Your task to perform on an android device: snooze an email in the gmail app Image 0: 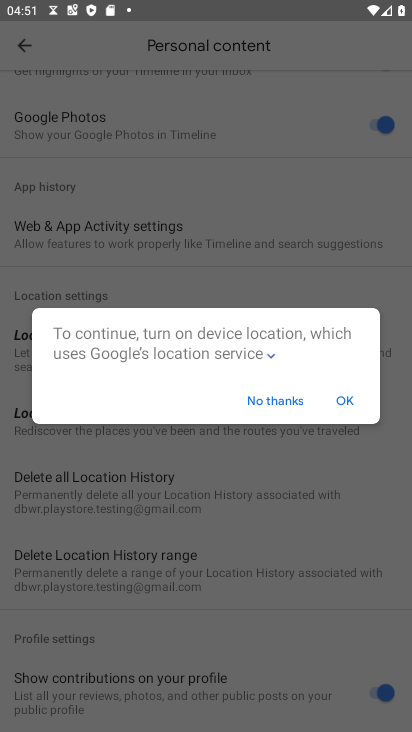
Step 0: press home button
Your task to perform on an android device: snooze an email in the gmail app Image 1: 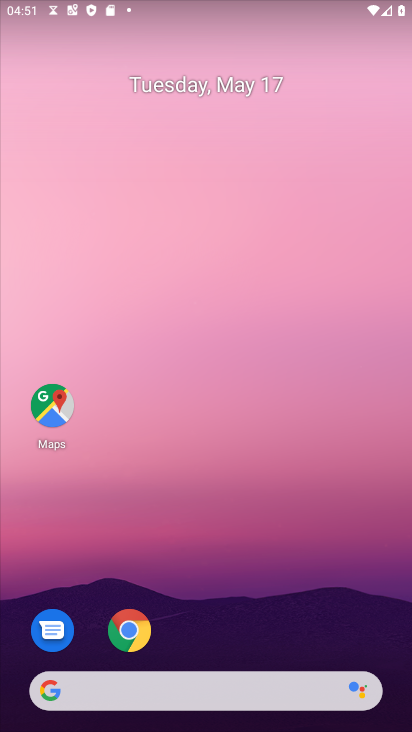
Step 1: drag from (279, 584) to (329, 168)
Your task to perform on an android device: snooze an email in the gmail app Image 2: 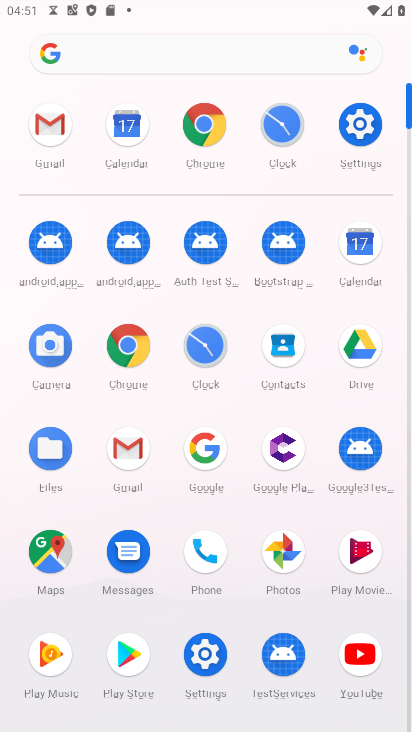
Step 2: click (46, 116)
Your task to perform on an android device: snooze an email in the gmail app Image 3: 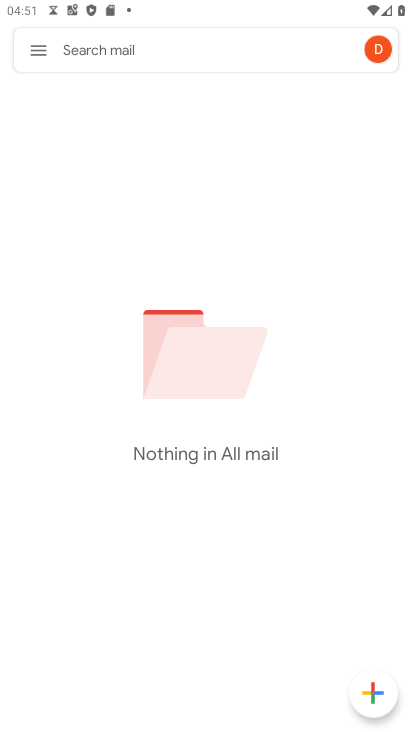
Step 3: click (45, 43)
Your task to perform on an android device: snooze an email in the gmail app Image 4: 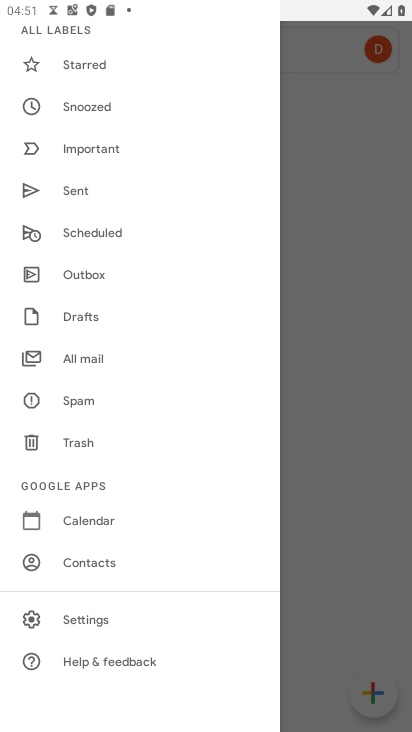
Step 4: click (344, 192)
Your task to perform on an android device: snooze an email in the gmail app Image 5: 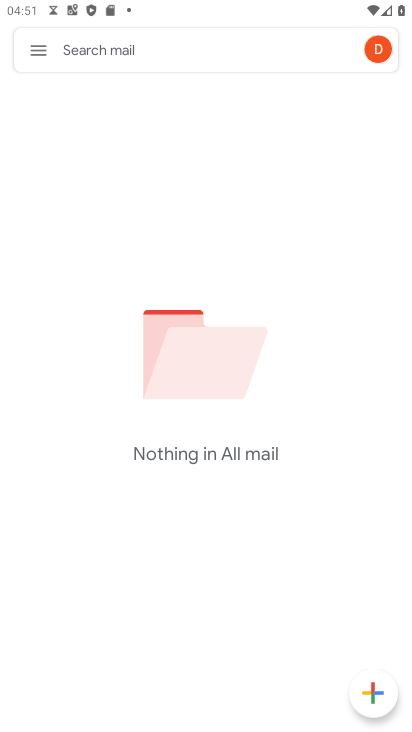
Step 5: task complete